Your task to perform on an android device: Open Google Chrome and click the shortcut for Amazon.com Image 0: 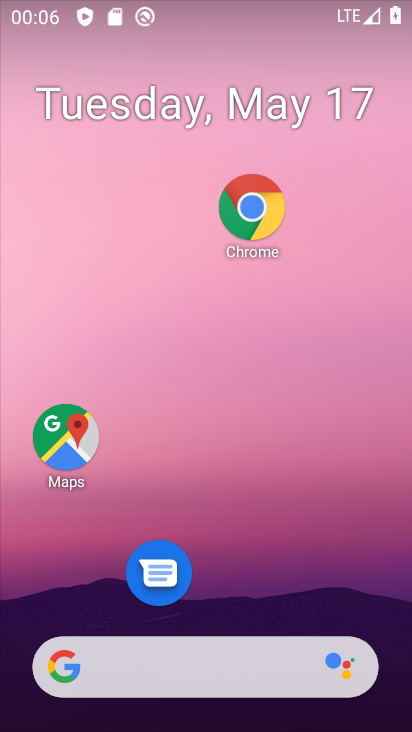
Step 0: drag from (297, 710) to (186, 123)
Your task to perform on an android device: Open Google Chrome and click the shortcut for Amazon.com Image 1: 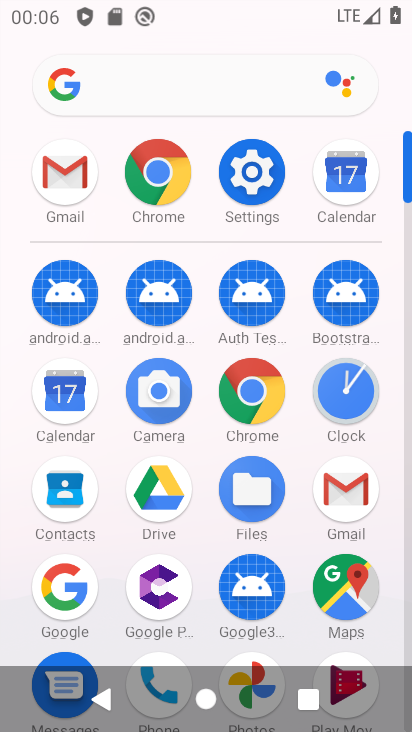
Step 1: click (238, 375)
Your task to perform on an android device: Open Google Chrome and click the shortcut for Amazon.com Image 2: 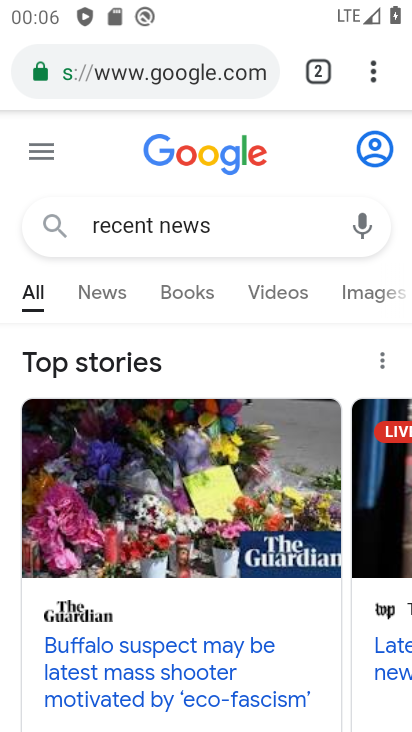
Step 2: click (369, 62)
Your task to perform on an android device: Open Google Chrome and click the shortcut for Amazon.com Image 3: 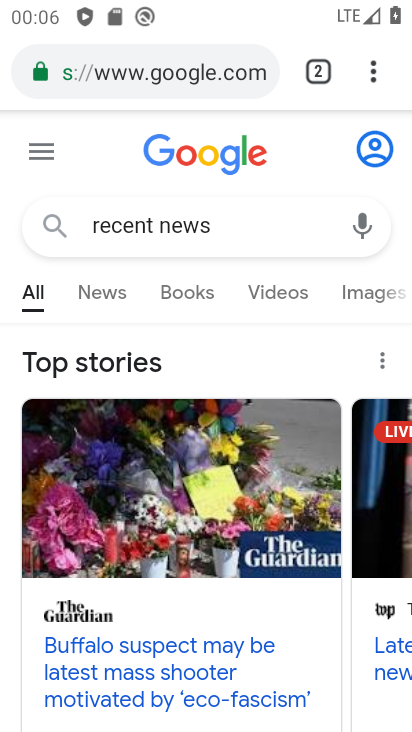
Step 3: drag from (378, 64) to (139, 128)
Your task to perform on an android device: Open Google Chrome and click the shortcut for Amazon.com Image 4: 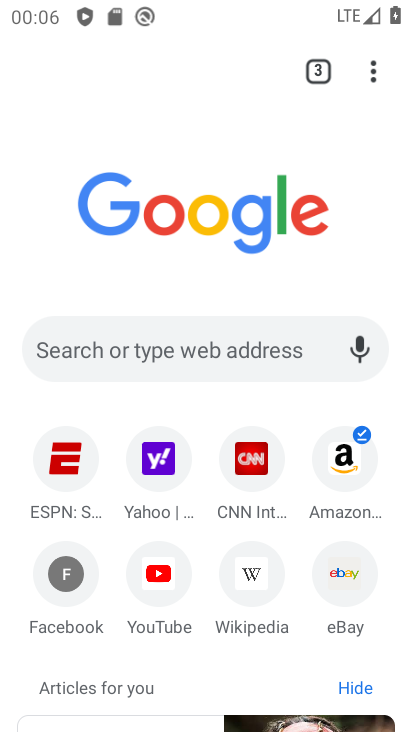
Step 4: click (346, 465)
Your task to perform on an android device: Open Google Chrome and click the shortcut for Amazon.com Image 5: 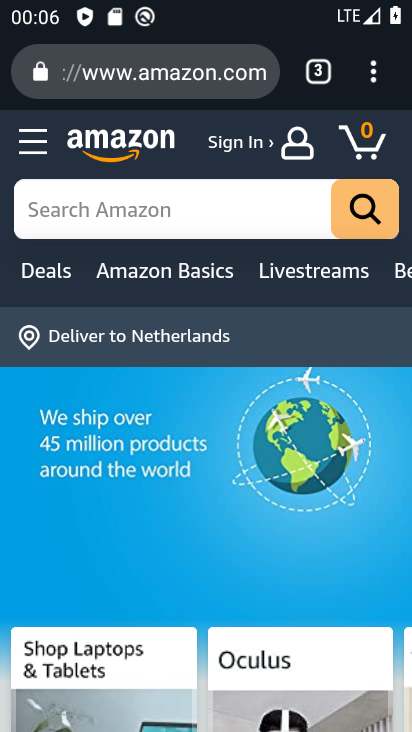
Step 5: click (363, 66)
Your task to perform on an android device: Open Google Chrome and click the shortcut for Amazon.com Image 6: 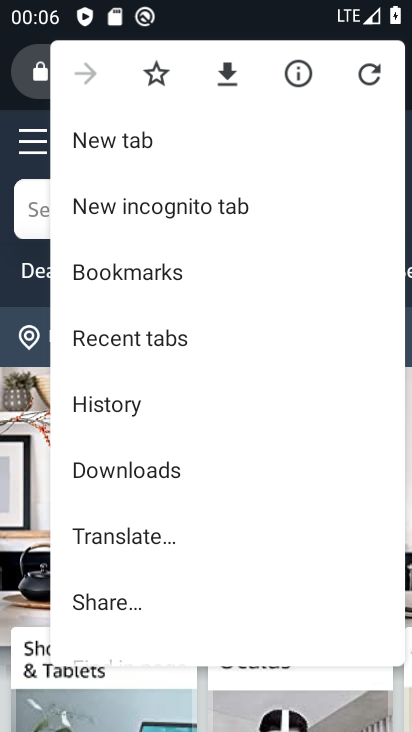
Step 6: drag from (226, 586) to (251, 190)
Your task to perform on an android device: Open Google Chrome and click the shortcut for Amazon.com Image 7: 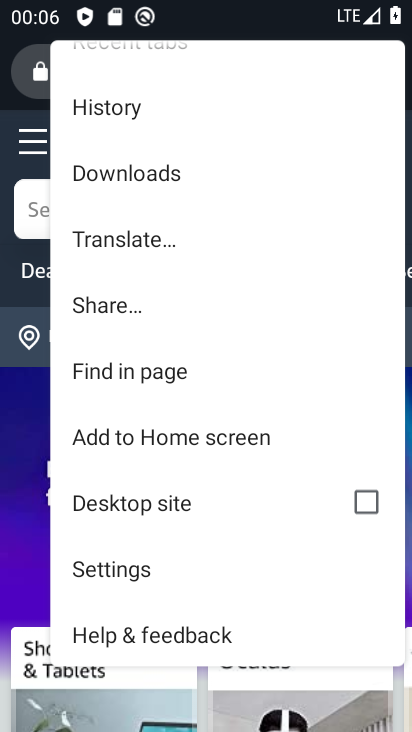
Step 7: click (207, 446)
Your task to perform on an android device: Open Google Chrome and click the shortcut for Amazon.com Image 8: 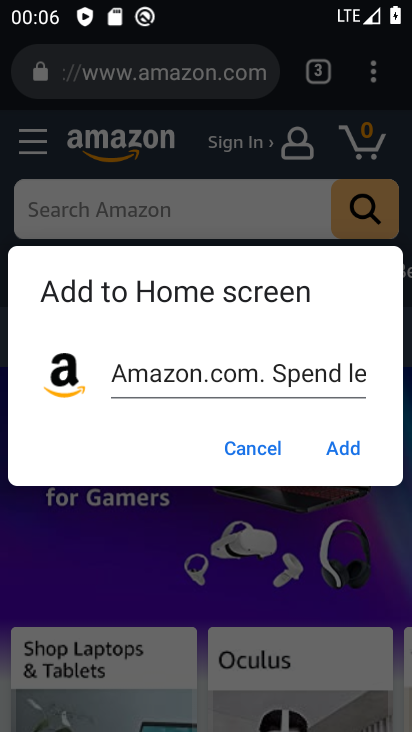
Step 8: click (342, 447)
Your task to perform on an android device: Open Google Chrome and click the shortcut for Amazon.com Image 9: 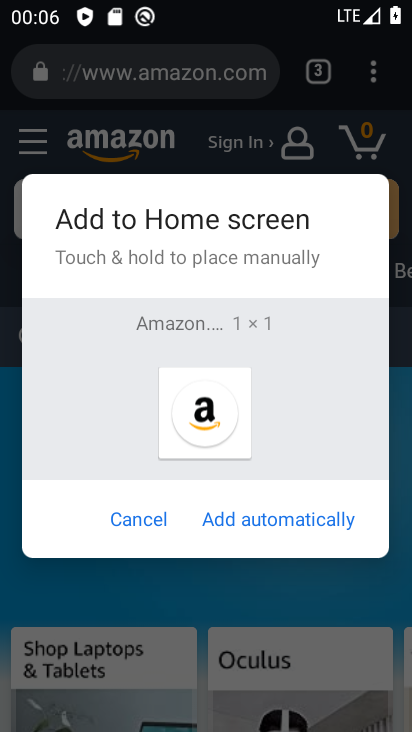
Step 9: click (286, 514)
Your task to perform on an android device: Open Google Chrome and click the shortcut for Amazon.com Image 10: 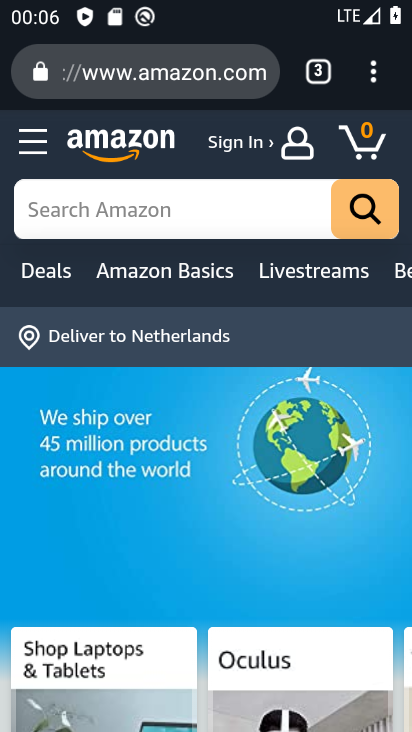
Step 10: task complete